Your task to perform on an android device: What's the weather today? Image 0: 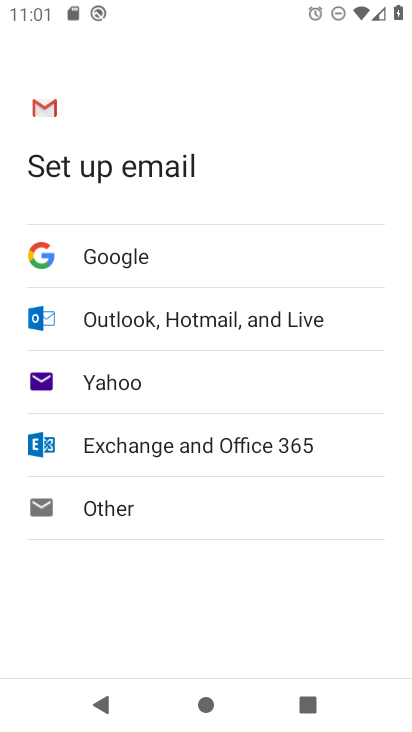
Step 0: press home button
Your task to perform on an android device: What's the weather today? Image 1: 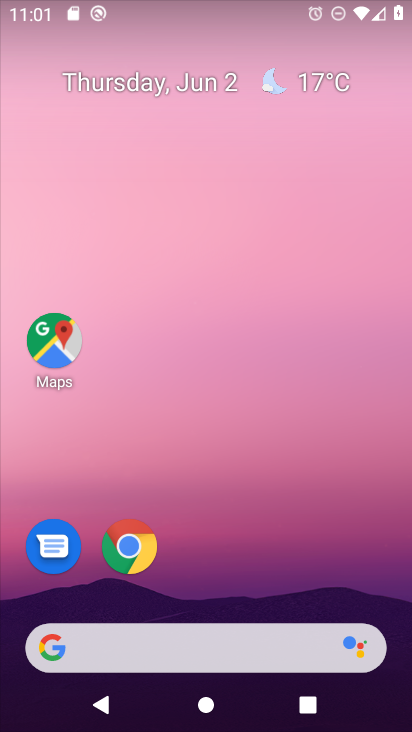
Step 1: drag from (284, 575) to (246, 34)
Your task to perform on an android device: What's the weather today? Image 2: 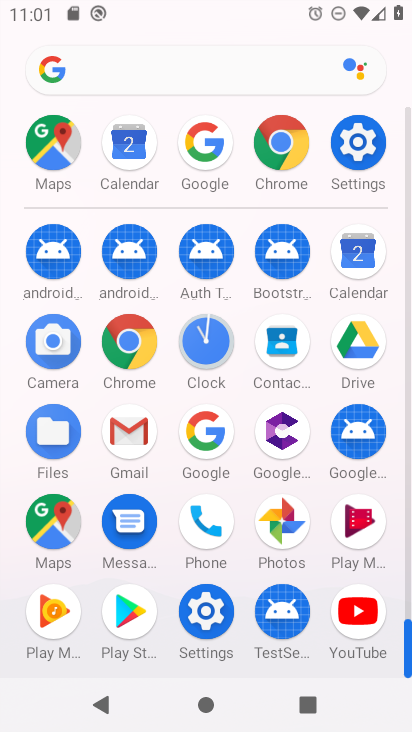
Step 2: click (130, 336)
Your task to perform on an android device: What's the weather today? Image 3: 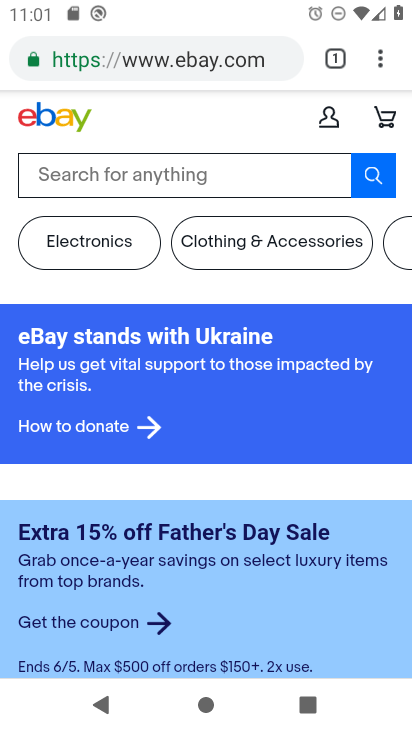
Step 3: click (172, 48)
Your task to perform on an android device: What's the weather today? Image 4: 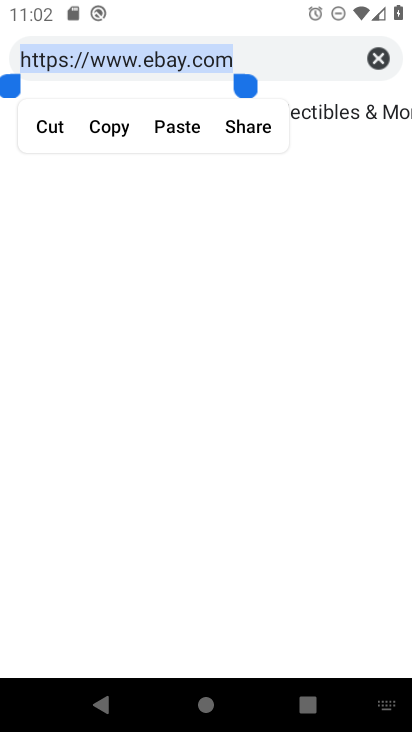
Step 4: click (378, 55)
Your task to perform on an android device: What's the weather today? Image 5: 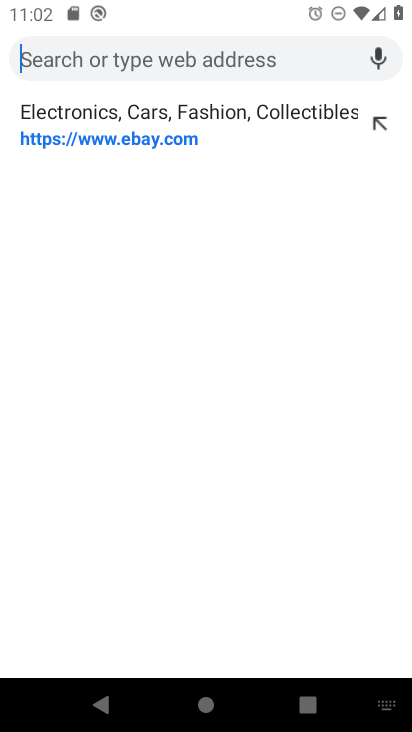
Step 5: type "What's the weather today?"
Your task to perform on an android device: What's the weather today? Image 6: 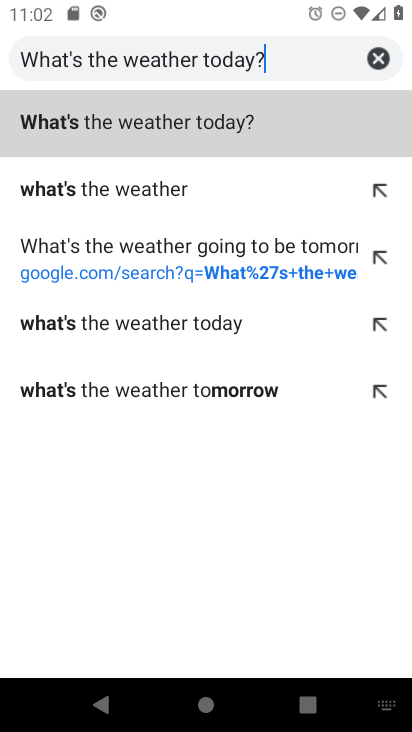
Step 6: type ""
Your task to perform on an android device: What's the weather today? Image 7: 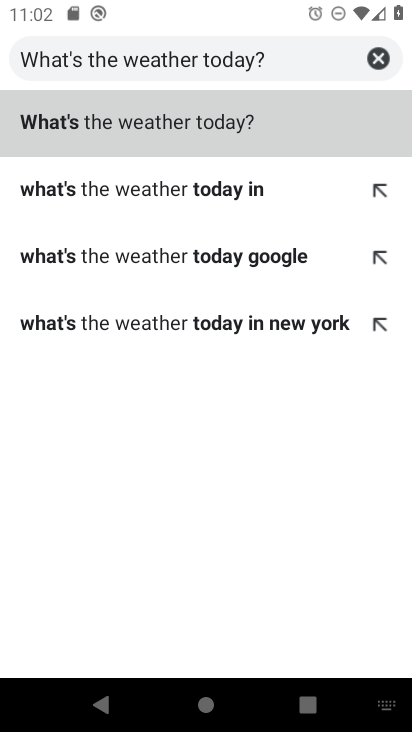
Step 7: click (190, 113)
Your task to perform on an android device: What's the weather today? Image 8: 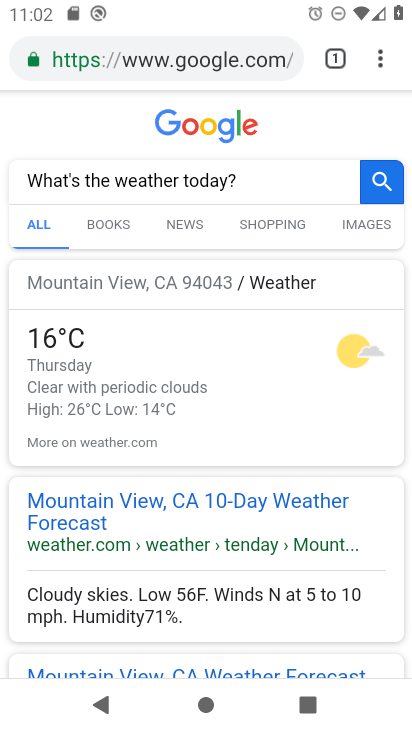
Step 8: task complete